Your task to perform on an android device: open device folders in google photos Image 0: 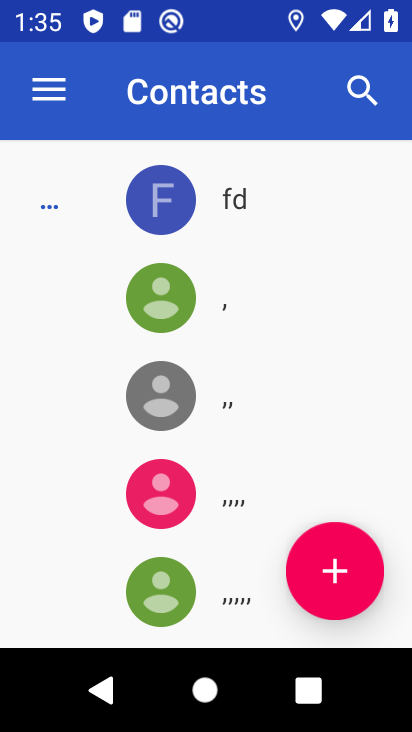
Step 0: press home button
Your task to perform on an android device: open device folders in google photos Image 1: 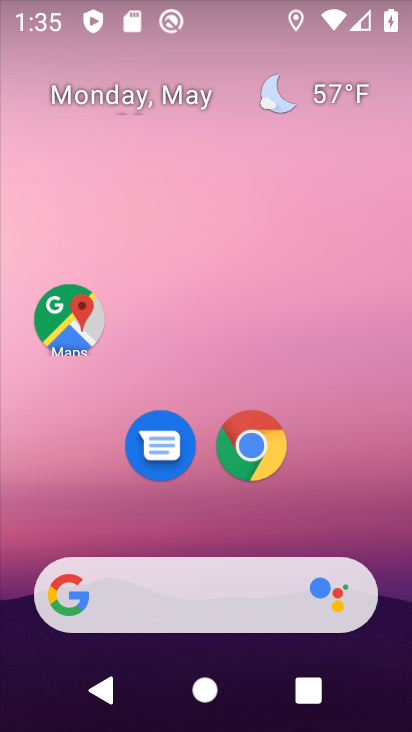
Step 1: drag from (218, 485) to (229, 115)
Your task to perform on an android device: open device folders in google photos Image 2: 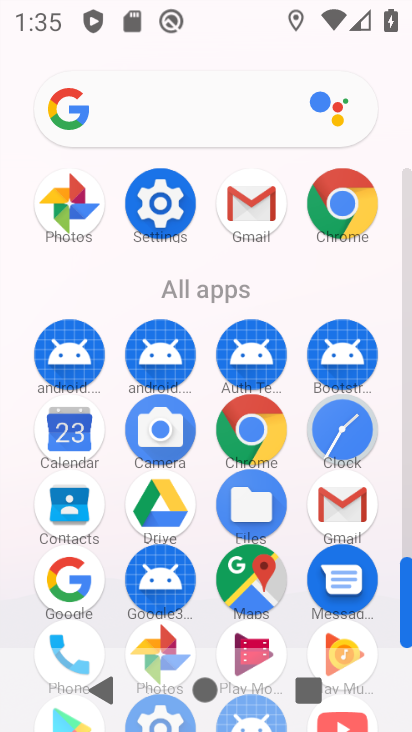
Step 2: click (66, 206)
Your task to perform on an android device: open device folders in google photos Image 3: 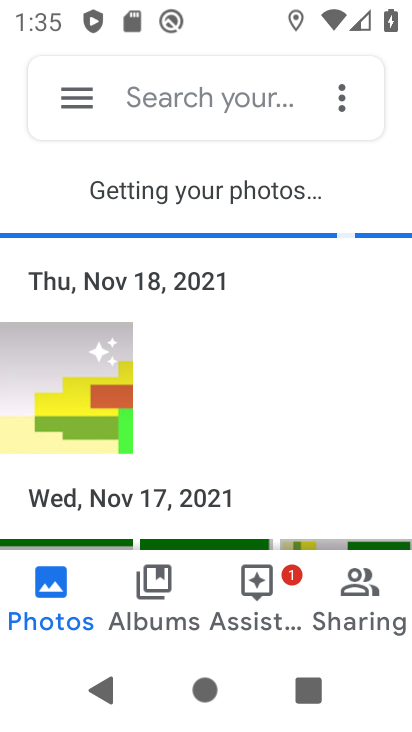
Step 3: click (73, 100)
Your task to perform on an android device: open device folders in google photos Image 4: 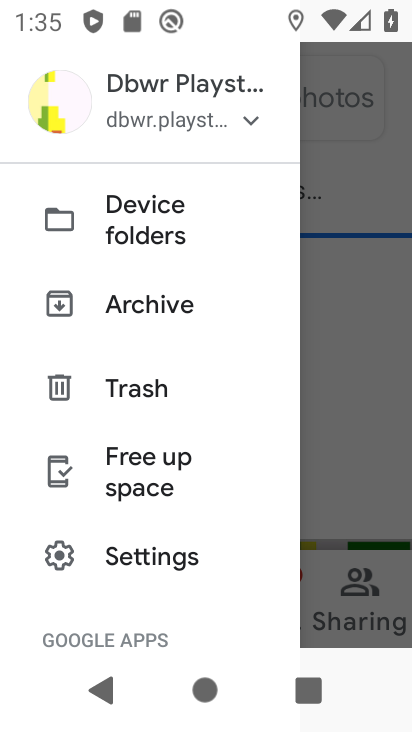
Step 4: click (156, 204)
Your task to perform on an android device: open device folders in google photos Image 5: 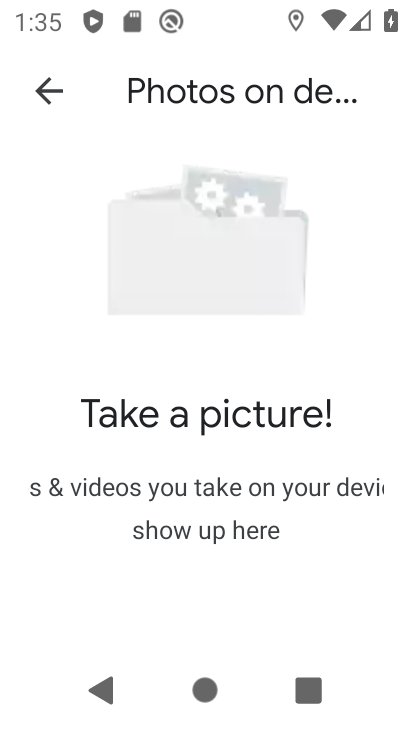
Step 5: task complete